Your task to perform on an android device: Open calendar and show me the second week of next month Image 0: 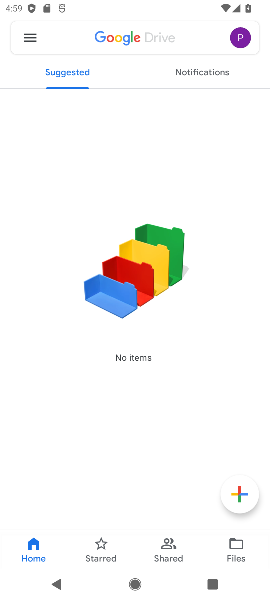
Step 0: press home button
Your task to perform on an android device: Open calendar and show me the second week of next month Image 1: 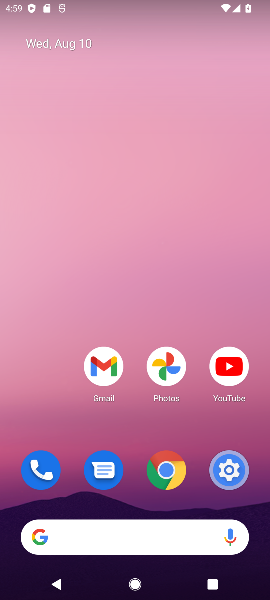
Step 1: click (120, 368)
Your task to perform on an android device: Open calendar and show me the second week of next month Image 2: 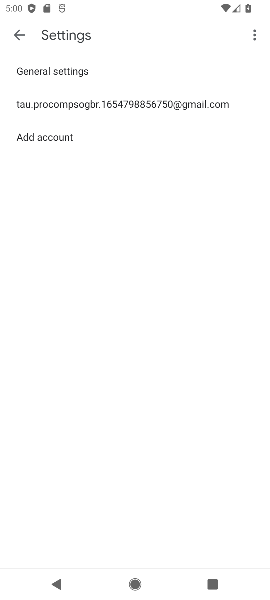
Step 2: press home button
Your task to perform on an android device: Open calendar and show me the second week of next month Image 3: 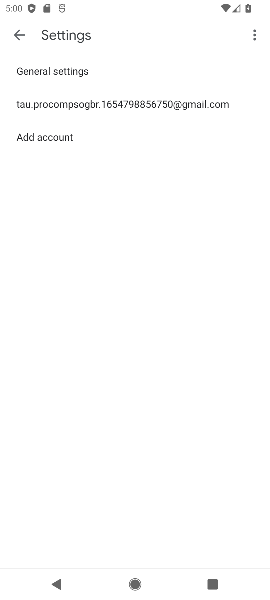
Step 3: press home button
Your task to perform on an android device: Open calendar and show me the second week of next month Image 4: 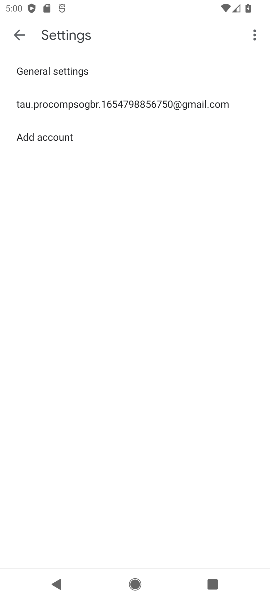
Step 4: press home button
Your task to perform on an android device: Open calendar and show me the second week of next month Image 5: 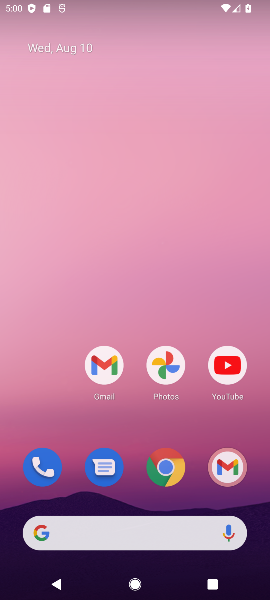
Step 5: press home button
Your task to perform on an android device: Open calendar and show me the second week of next month Image 6: 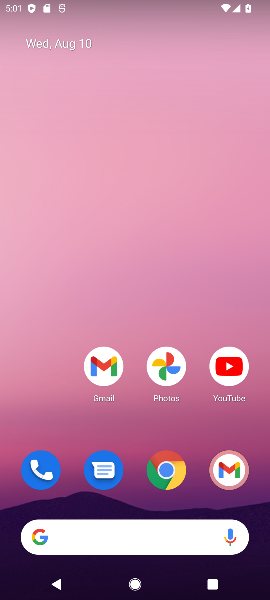
Step 6: drag from (119, 417) to (180, 11)
Your task to perform on an android device: Open calendar and show me the second week of next month Image 7: 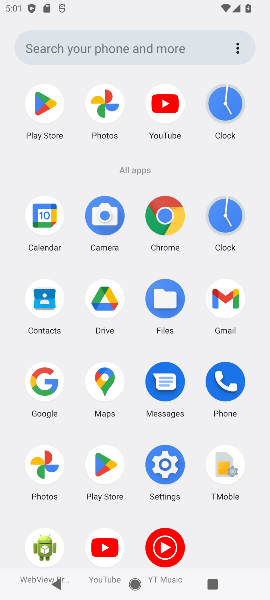
Step 7: click (43, 218)
Your task to perform on an android device: Open calendar and show me the second week of next month Image 8: 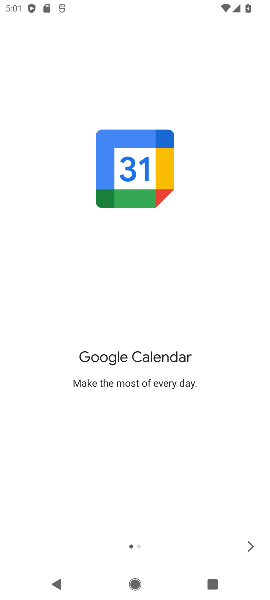
Step 8: click (247, 550)
Your task to perform on an android device: Open calendar and show me the second week of next month Image 9: 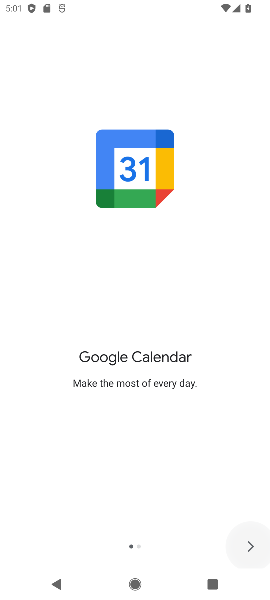
Step 9: click (247, 550)
Your task to perform on an android device: Open calendar and show me the second week of next month Image 10: 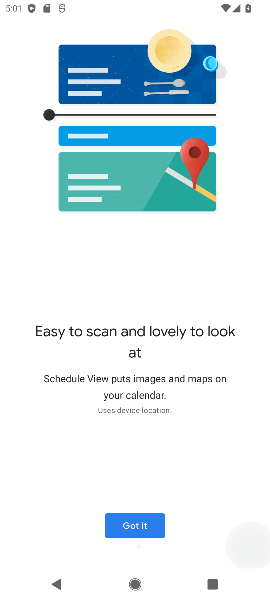
Step 10: click (247, 550)
Your task to perform on an android device: Open calendar and show me the second week of next month Image 11: 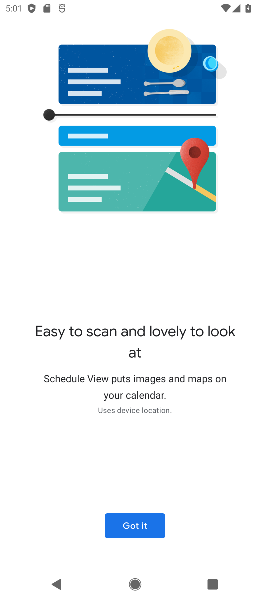
Step 11: click (108, 526)
Your task to perform on an android device: Open calendar and show me the second week of next month Image 12: 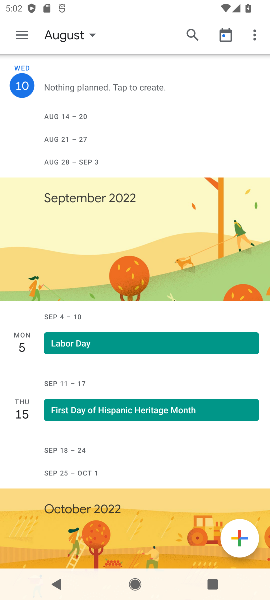
Step 12: click (86, 33)
Your task to perform on an android device: Open calendar and show me the second week of next month Image 13: 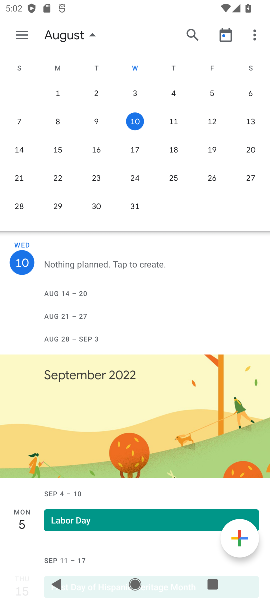
Step 13: drag from (254, 147) to (40, 216)
Your task to perform on an android device: Open calendar and show me the second week of next month Image 14: 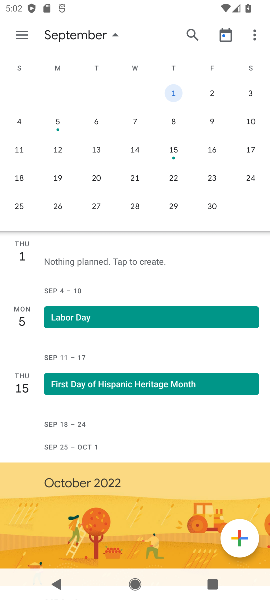
Step 14: click (180, 119)
Your task to perform on an android device: Open calendar and show me the second week of next month Image 15: 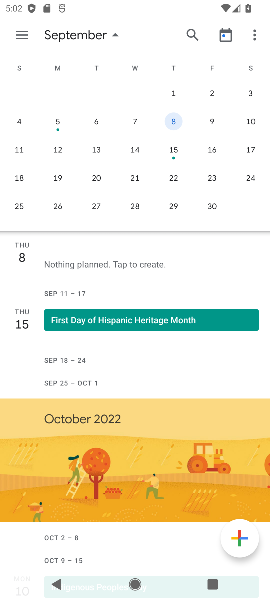
Step 15: task complete